Your task to perform on an android device: all mails in gmail Image 0: 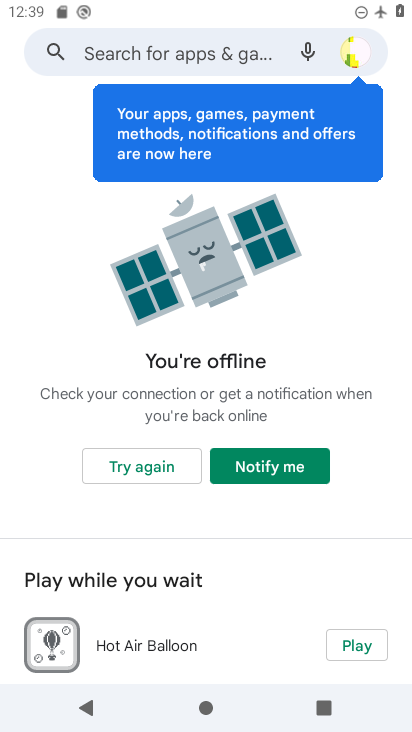
Step 0: press home button
Your task to perform on an android device: all mails in gmail Image 1: 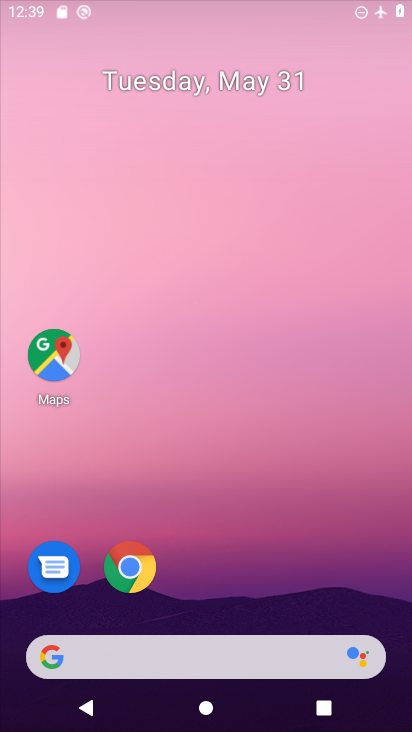
Step 1: drag from (206, 595) to (208, 117)
Your task to perform on an android device: all mails in gmail Image 2: 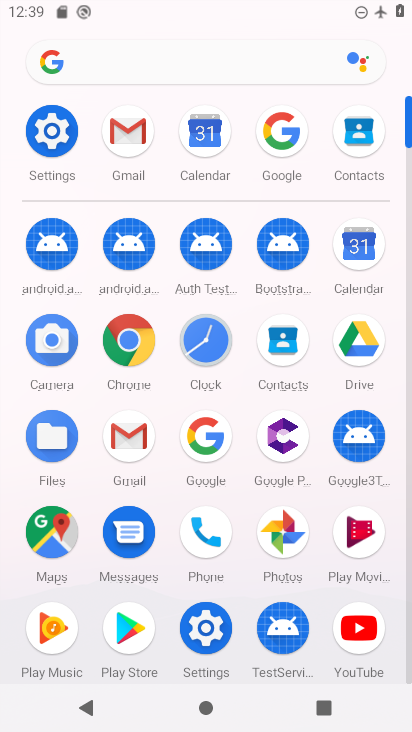
Step 2: click (151, 134)
Your task to perform on an android device: all mails in gmail Image 3: 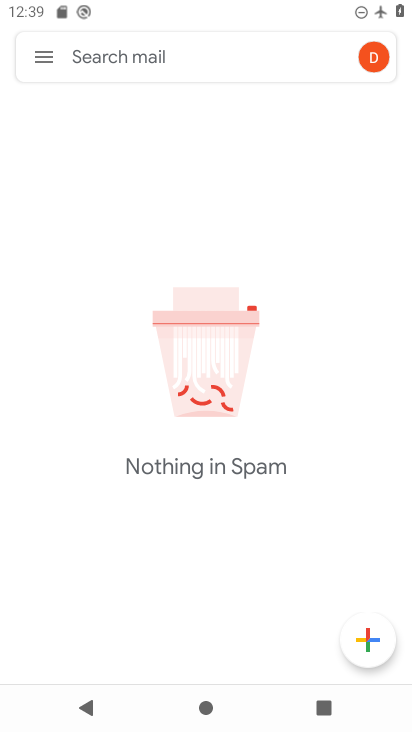
Step 3: click (39, 58)
Your task to perform on an android device: all mails in gmail Image 4: 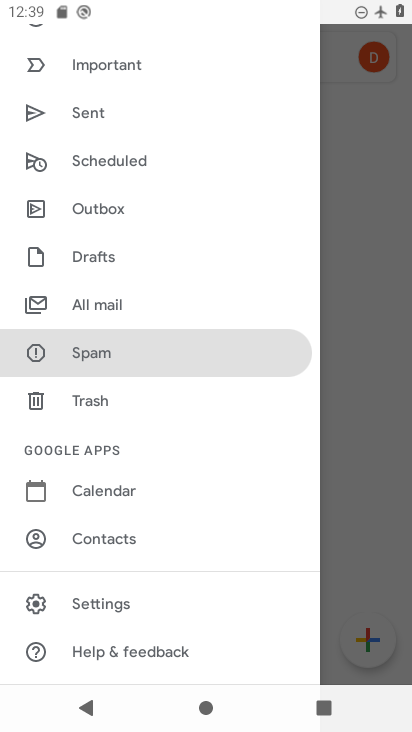
Step 4: click (115, 290)
Your task to perform on an android device: all mails in gmail Image 5: 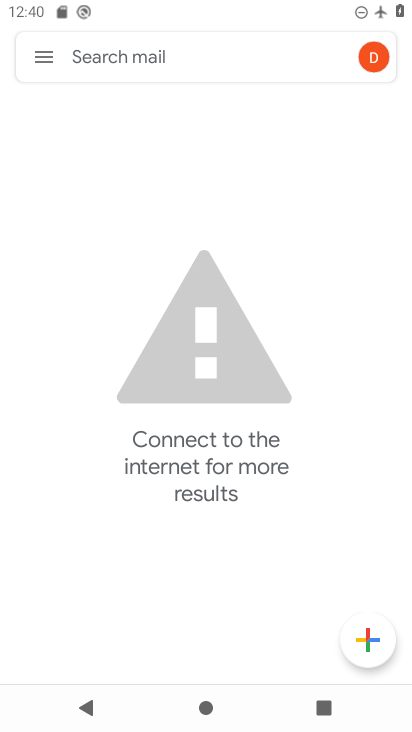
Step 5: click (37, 53)
Your task to perform on an android device: all mails in gmail Image 6: 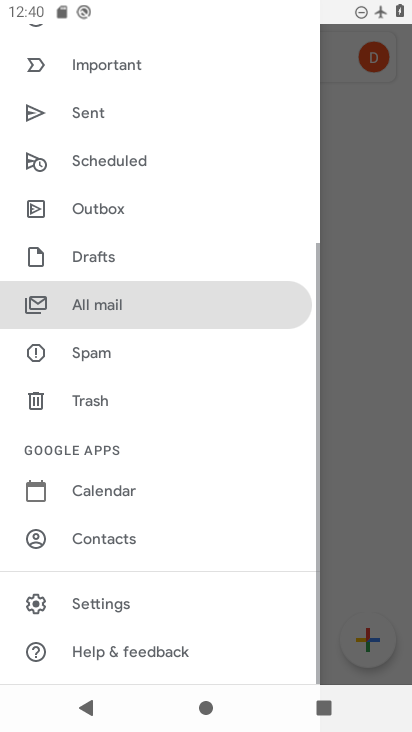
Step 6: click (88, 291)
Your task to perform on an android device: all mails in gmail Image 7: 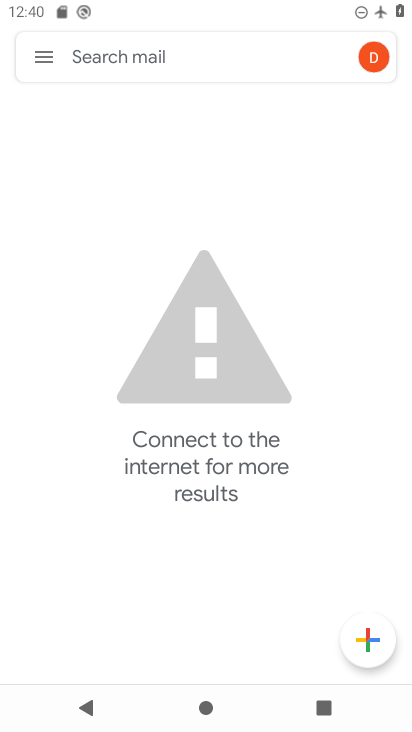
Step 7: task complete